Your task to perform on an android device: turn off improve location accuracy Image 0: 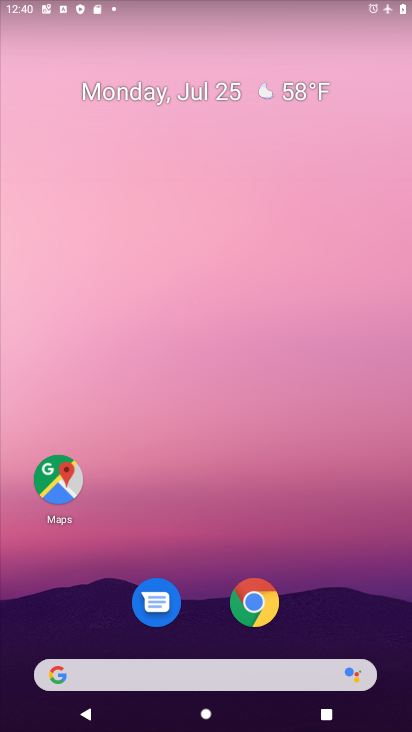
Step 0: drag from (199, 589) to (199, 1)
Your task to perform on an android device: turn off improve location accuracy Image 1: 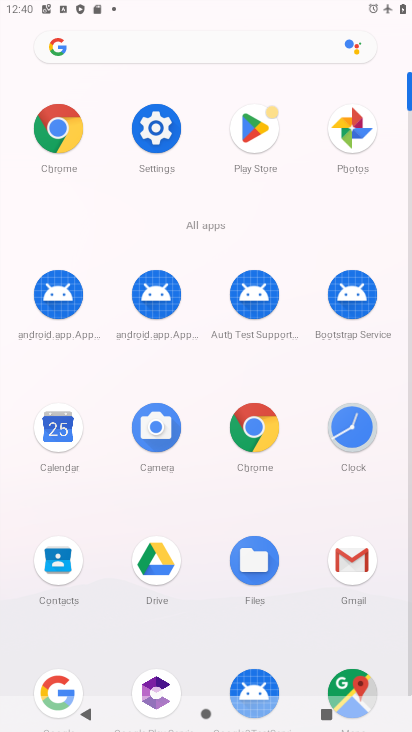
Step 1: click (174, 128)
Your task to perform on an android device: turn off improve location accuracy Image 2: 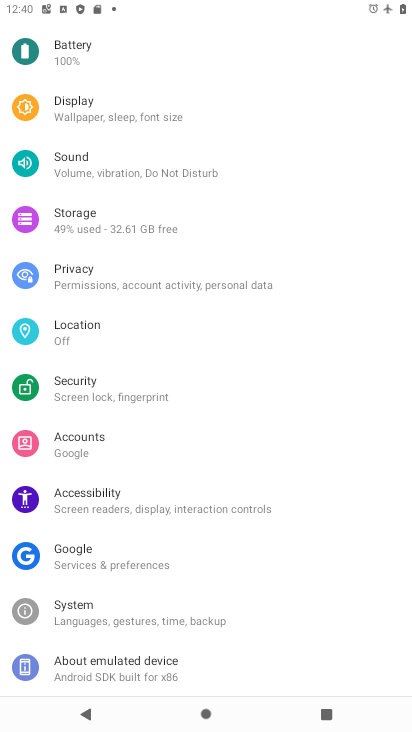
Step 2: click (106, 340)
Your task to perform on an android device: turn off improve location accuracy Image 3: 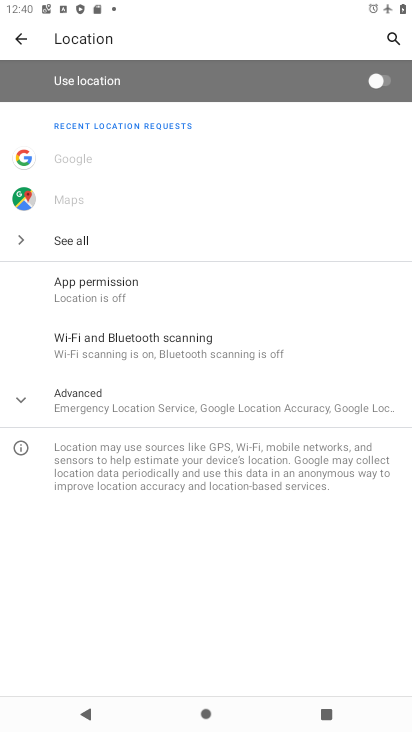
Step 3: click (121, 406)
Your task to perform on an android device: turn off improve location accuracy Image 4: 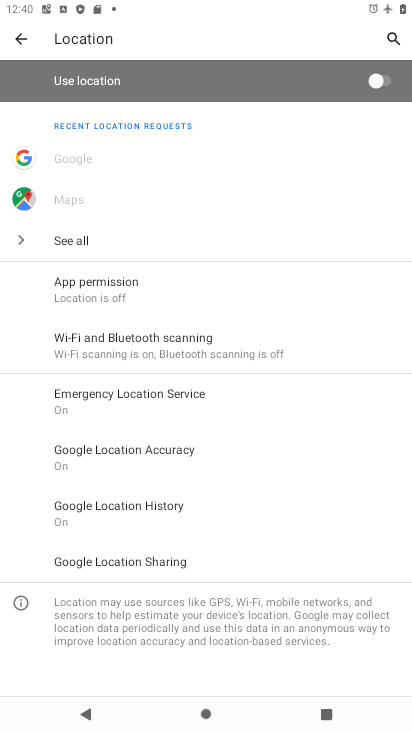
Step 4: click (187, 446)
Your task to perform on an android device: turn off improve location accuracy Image 5: 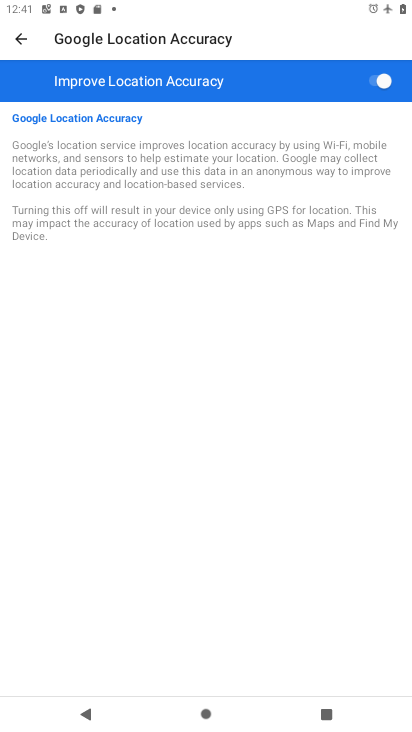
Step 5: click (368, 87)
Your task to perform on an android device: turn off improve location accuracy Image 6: 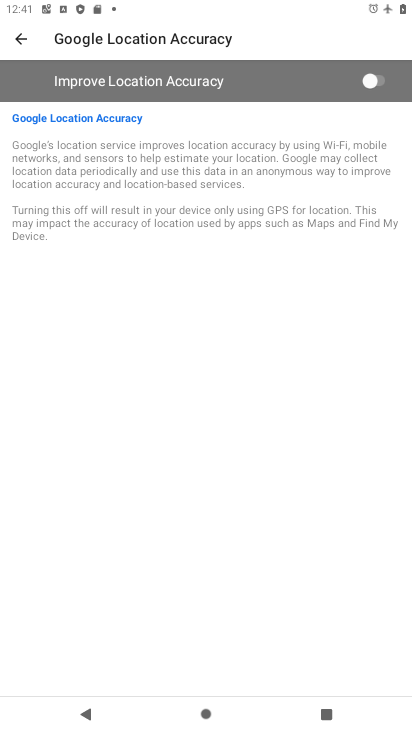
Step 6: task complete